Your task to perform on an android device: open chrome privacy settings Image 0: 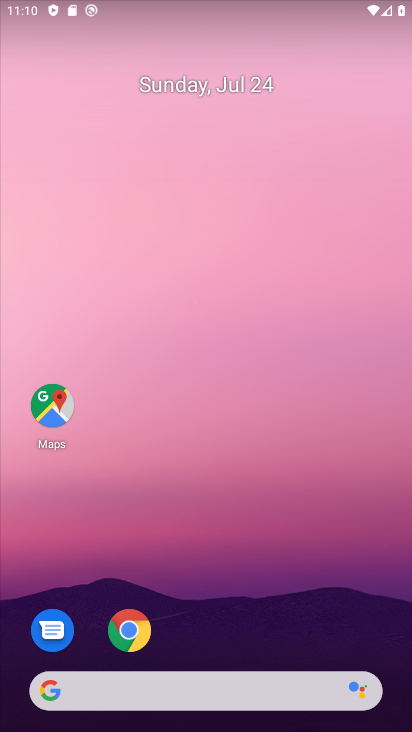
Step 0: click (132, 635)
Your task to perform on an android device: open chrome privacy settings Image 1: 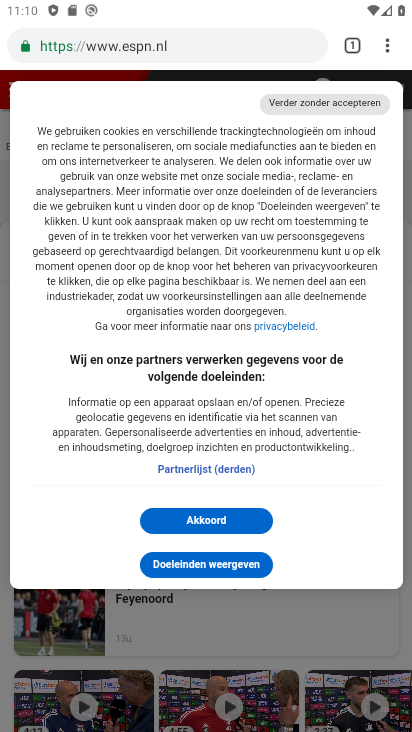
Step 1: click (386, 48)
Your task to perform on an android device: open chrome privacy settings Image 2: 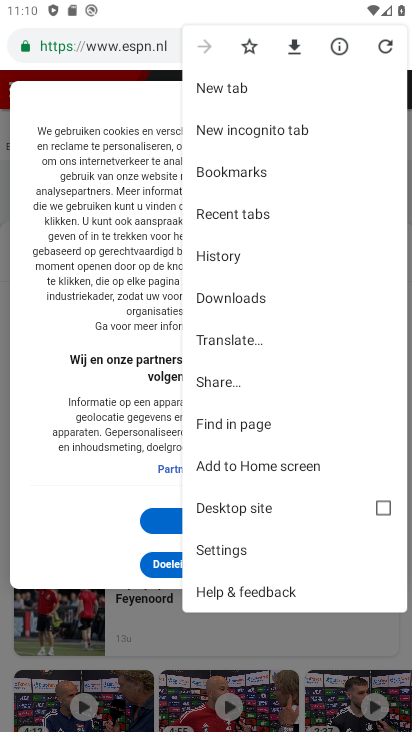
Step 2: click (234, 552)
Your task to perform on an android device: open chrome privacy settings Image 3: 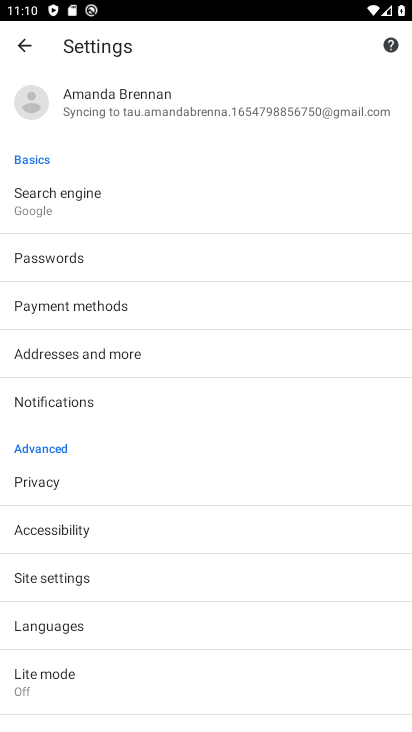
Step 3: click (45, 479)
Your task to perform on an android device: open chrome privacy settings Image 4: 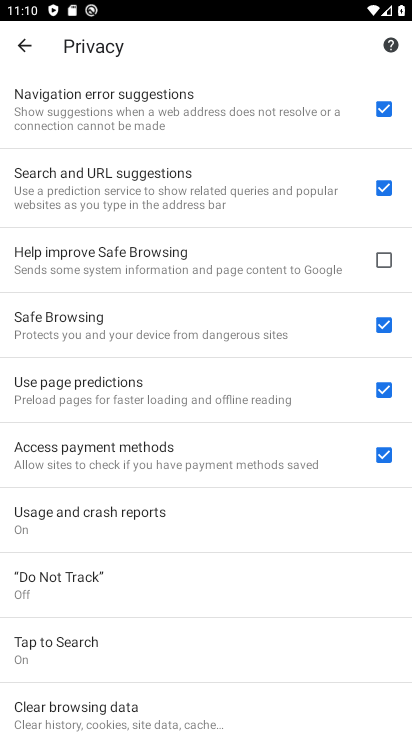
Step 4: task complete